Your task to perform on an android device: Go to Android settings Image 0: 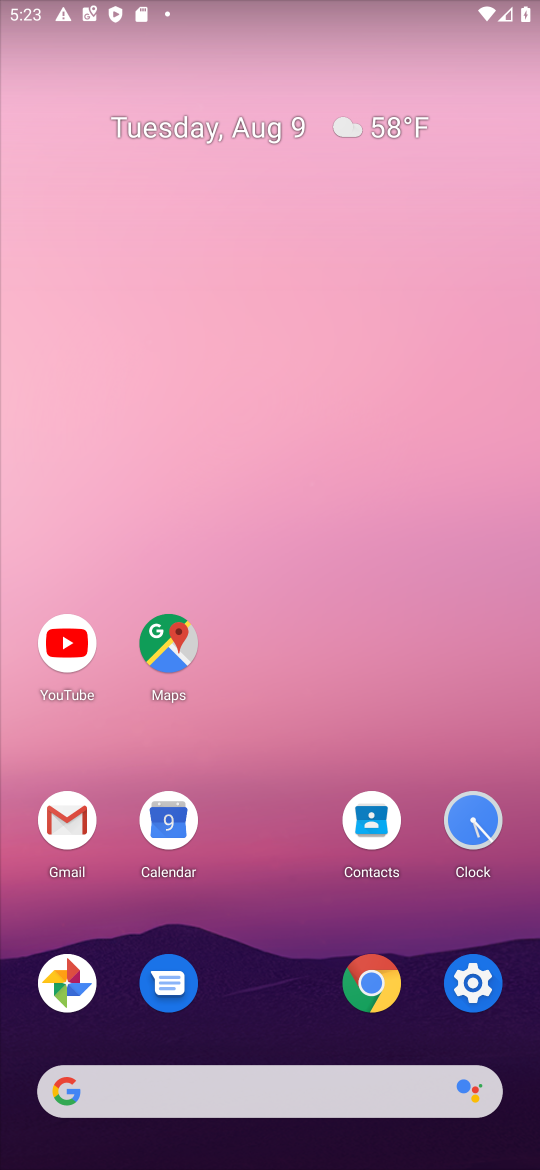
Step 0: click (474, 983)
Your task to perform on an android device: Go to Android settings Image 1: 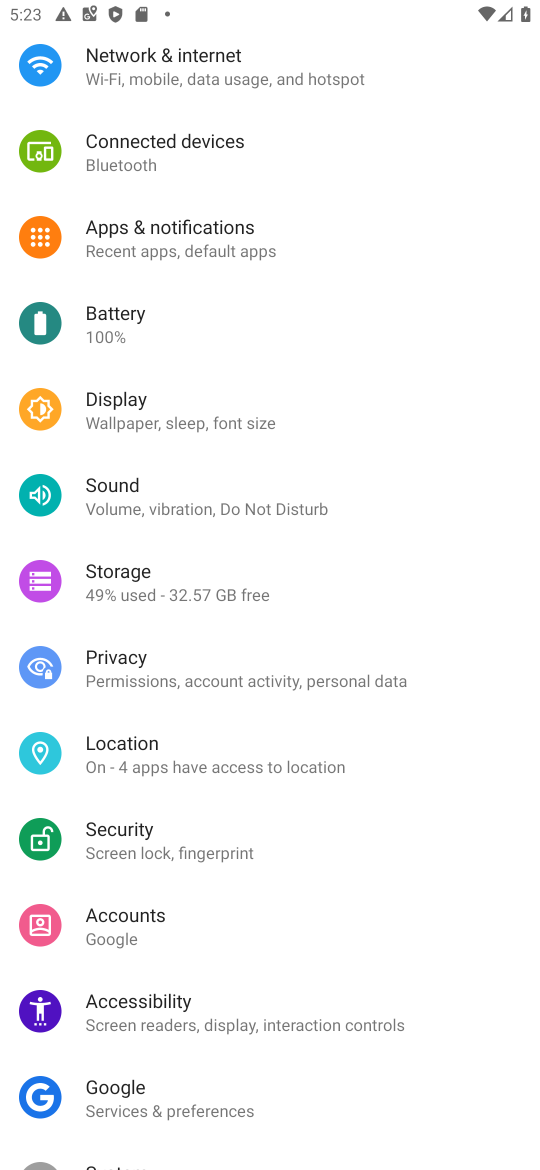
Step 1: task complete